Your task to perform on an android device: Show me recent news Image 0: 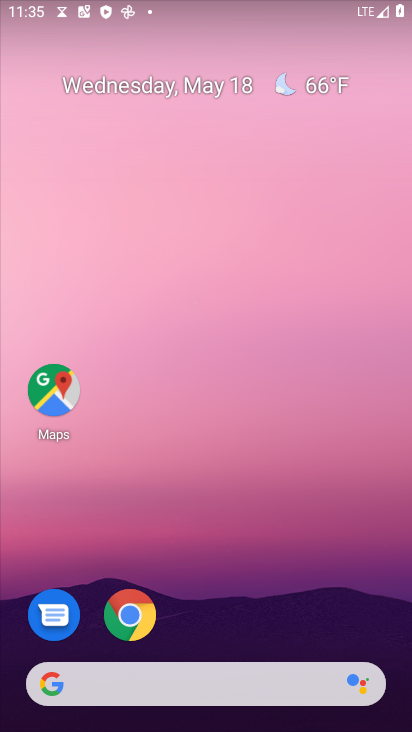
Step 0: drag from (248, 613) to (266, 61)
Your task to perform on an android device: Show me recent news Image 1: 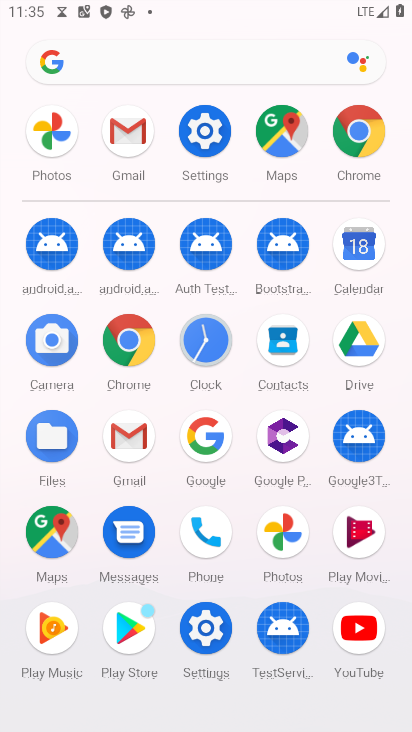
Step 1: click (122, 337)
Your task to perform on an android device: Show me recent news Image 2: 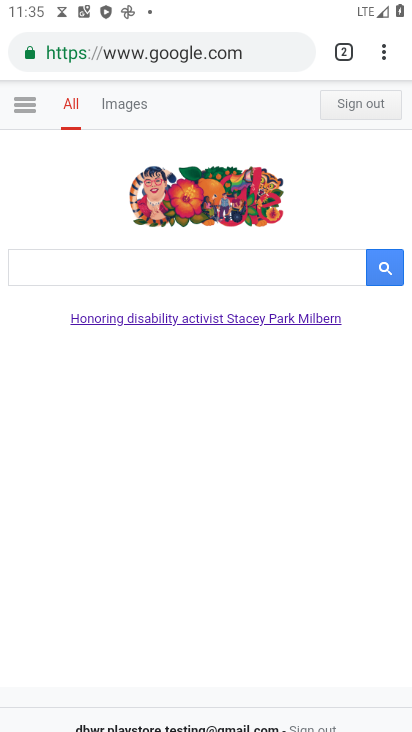
Step 2: click (191, 47)
Your task to perform on an android device: Show me recent news Image 3: 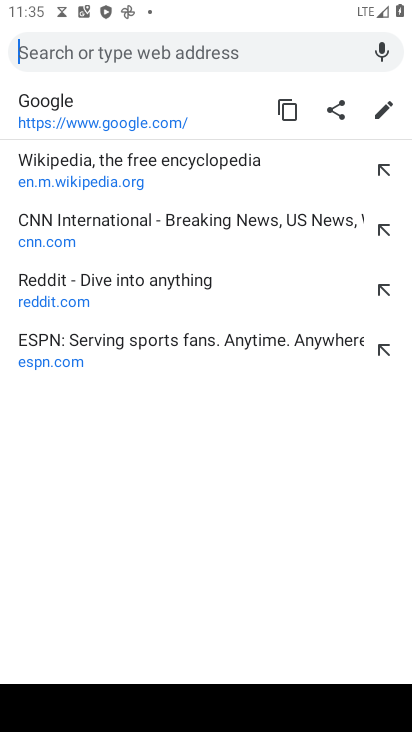
Step 3: type "Show me recent news"
Your task to perform on an android device: Show me recent news Image 4: 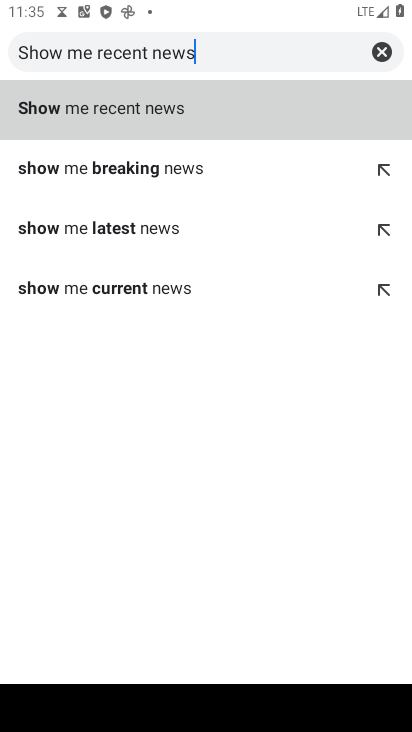
Step 4: type ""
Your task to perform on an android device: Show me recent news Image 5: 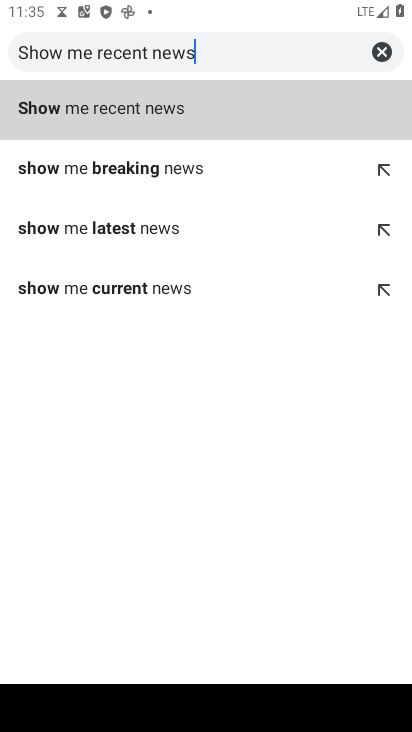
Step 5: click (146, 168)
Your task to perform on an android device: Show me recent news Image 6: 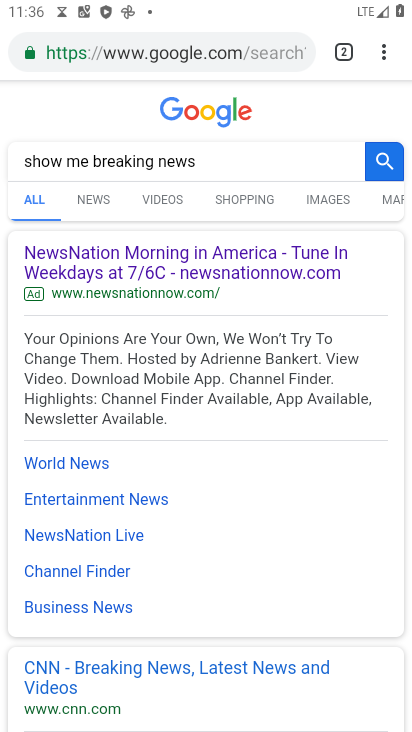
Step 6: click (97, 195)
Your task to perform on an android device: Show me recent news Image 7: 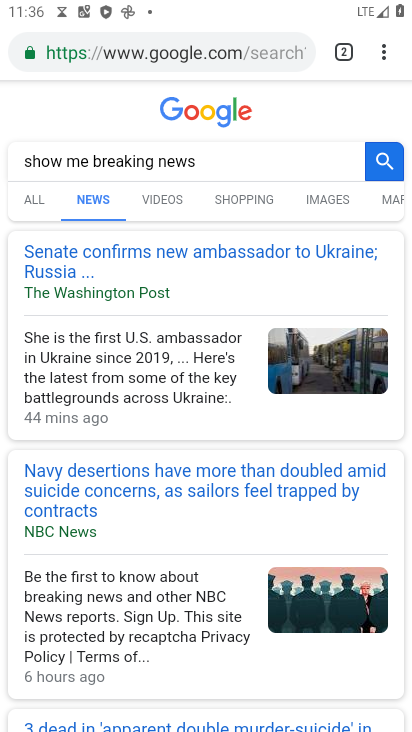
Step 7: task complete